Your task to perform on an android device: View the shopping cart on newegg.com. Image 0: 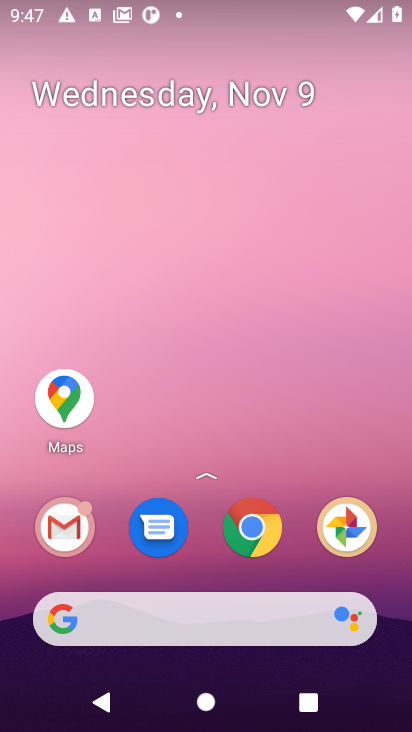
Step 0: click (247, 534)
Your task to perform on an android device: View the shopping cart on newegg.com. Image 1: 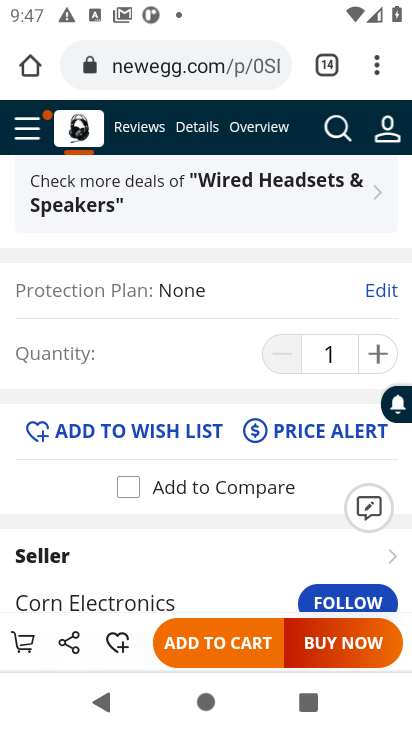
Step 1: drag from (308, 161) to (277, 406)
Your task to perform on an android device: View the shopping cart on newegg.com. Image 2: 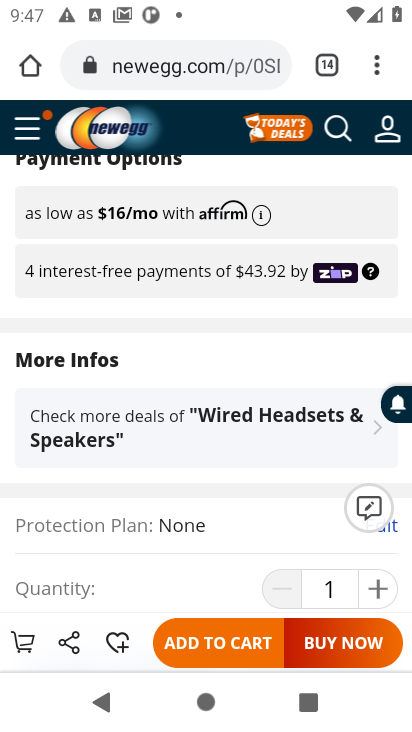
Step 2: drag from (238, 265) to (241, 130)
Your task to perform on an android device: View the shopping cart on newegg.com. Image 3: 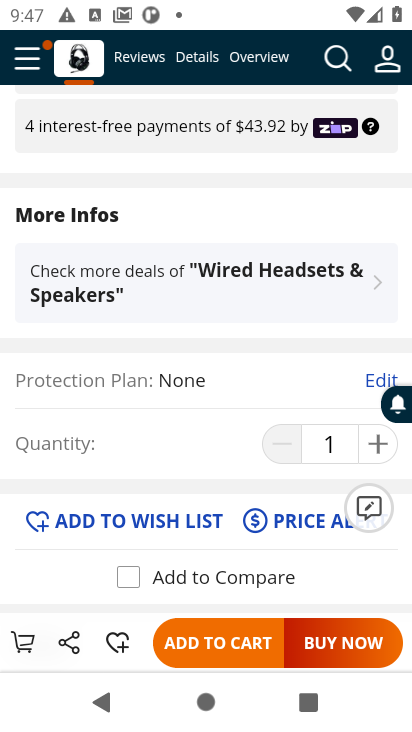
Step 3: click (26, 647)
Your task to perform on an android device: View the shopping cart on newegg.com. Image 4: 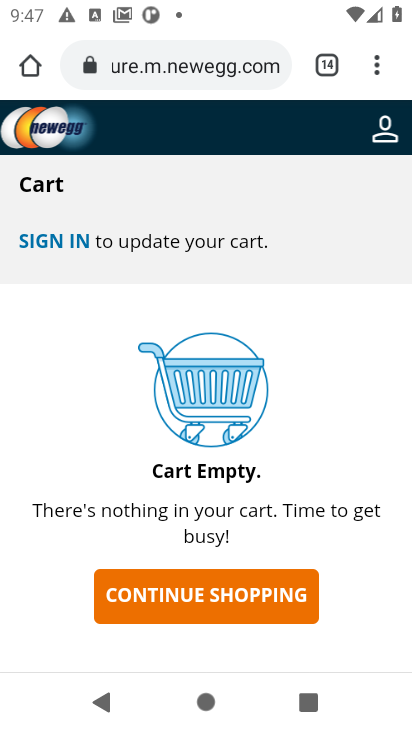
Step 4: task complete